Your task to perform on an android device: Open settings on Google Maps Image 0: 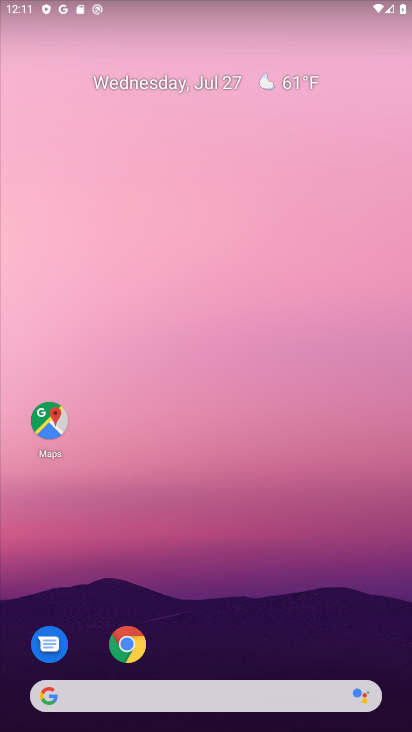
Step 0: drag from (189, 631) to (308, 551)
Your task to perform on an android device: Open settings on Google Maps Image 1: 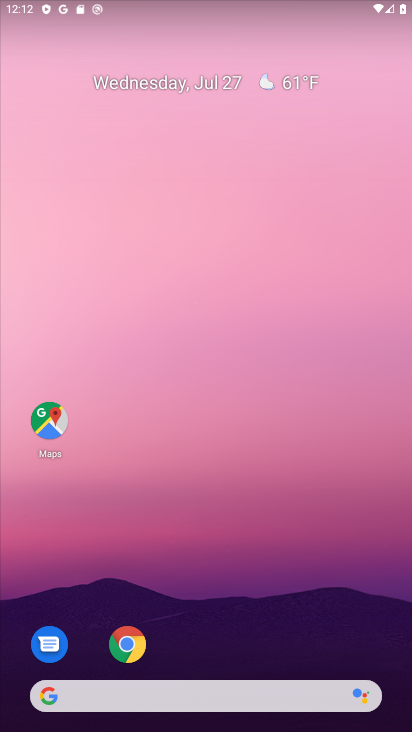
Step 1: drag from (255, 604) to (275, 223)
Your task to perform on an android device: Open settings on Google Maps Image 2: 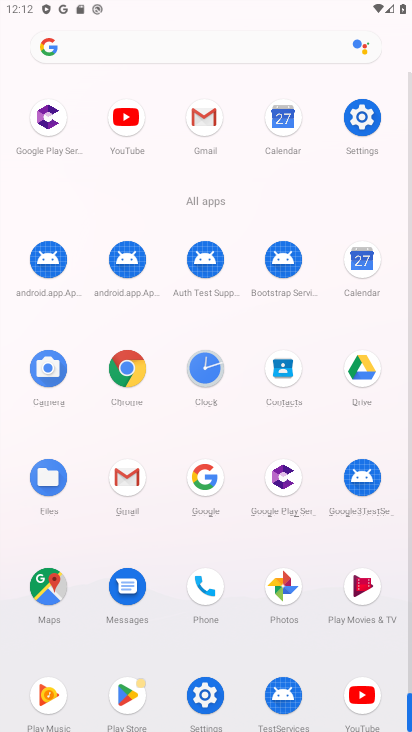
Step 2: click (37, 577)
Your task to perform on an android device: Open settings on Google Maps Image 3: 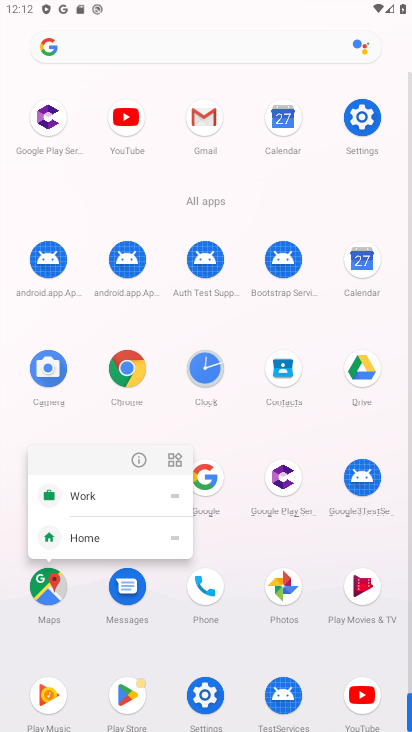
Step 3: click (143, 453)
Your task to perform on an android device: Open settings on Google Maps Image 4: 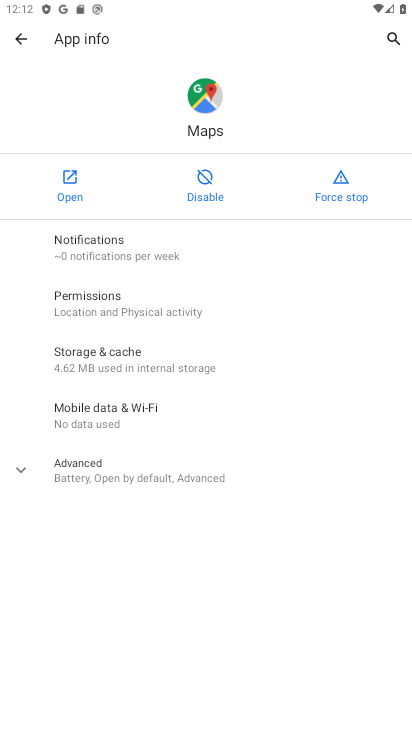
Step 4: click (48, 169)
Your task to perform on an android device: Open settings on Google Maps Image 5: 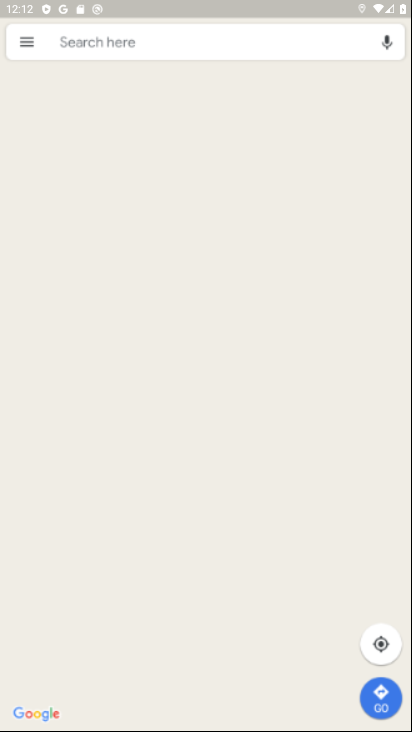
Step 5: drag from (158, 602) to (144, 192)
Your task to perform on an android device: Open settings on Google Maps Image 6: 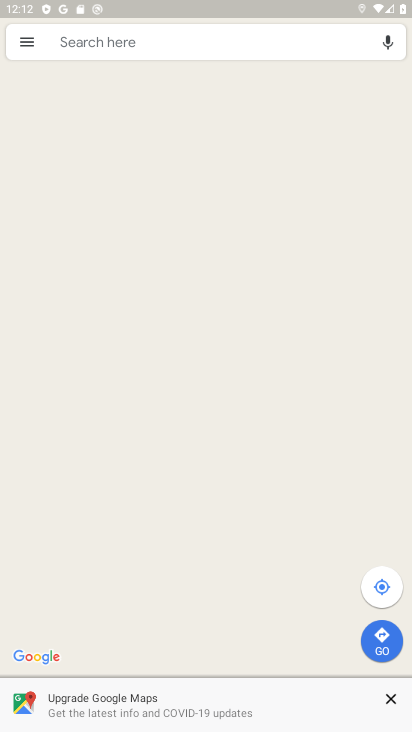
Step 6: drag from (125, 185) to (227, 594)
Your task to perform on an android device: Open settings on Google Maps Image 7: 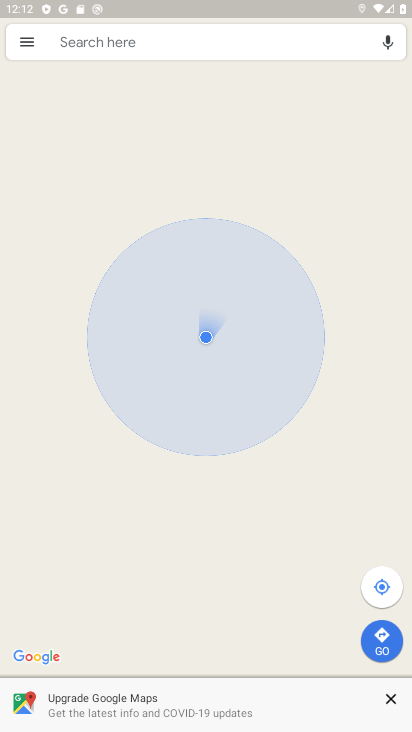
Step 7: click (21, 39)
Your task to perform on an android device: Open settings on Google Maps Image 8: 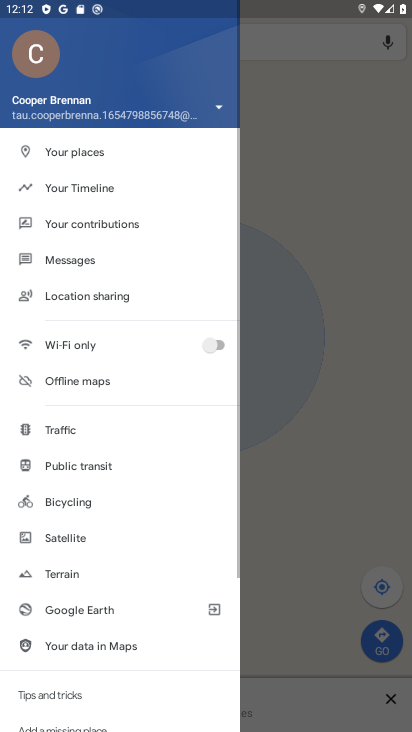
Step 8: drag from (98, 380) to (113, 62)
Your task to perform on an android device: Open settings on Google Maps Image 9: 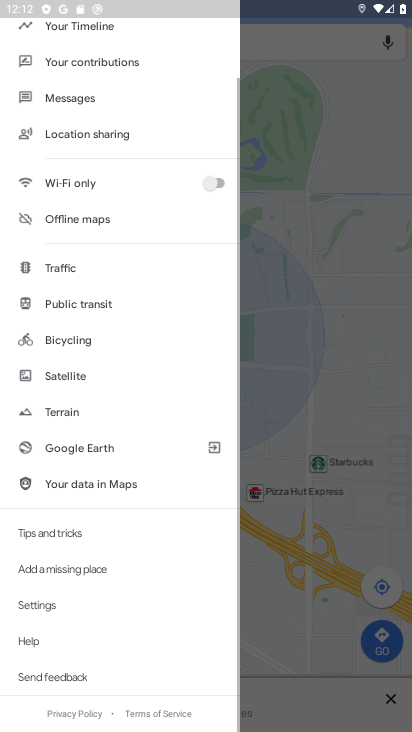
Step 9: drag from (101, 569) to (101, 332)
Your task to perform on an android device: Open settings on Google Maps Image 10: 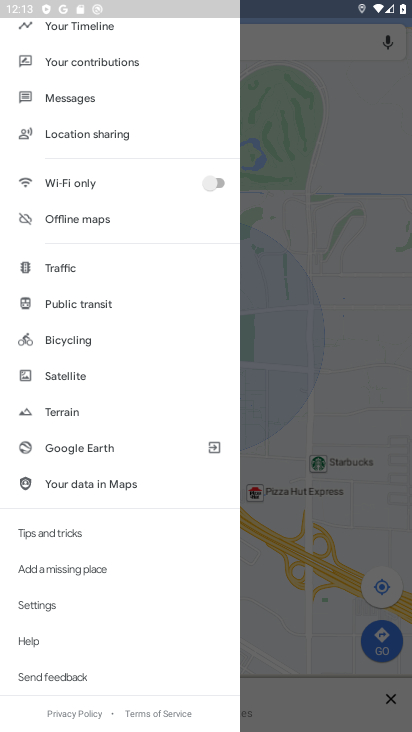
Step 10: click (50, 606)
Your task to perform on an android device: Open settings on Google Maps Image 11: 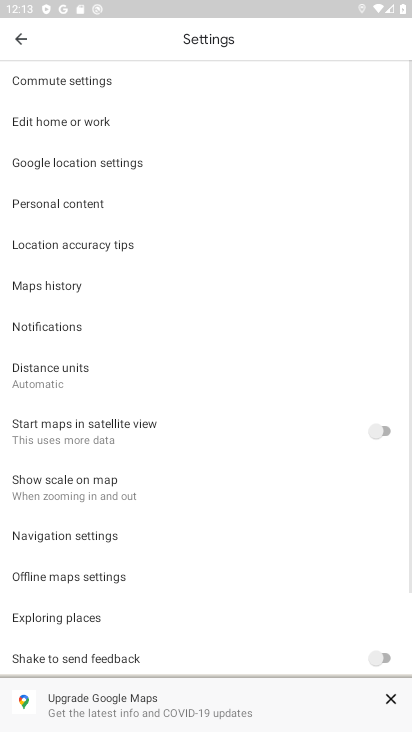
Step 11: task complete